Your task to perform on an android device: check android version Image 0: 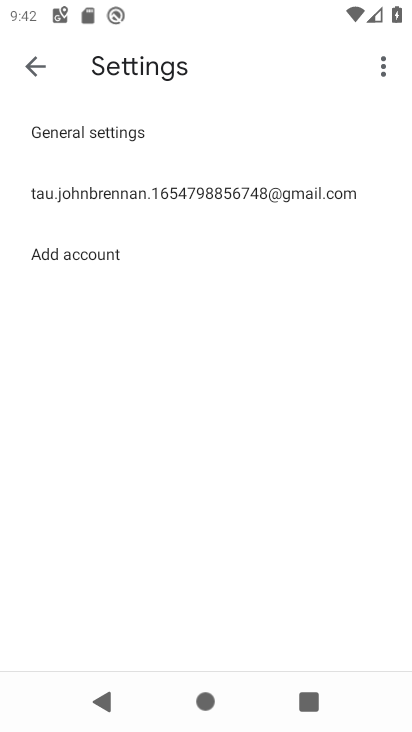
Step 0: press home button
Your task to perform on an android device: check android version Image 1: 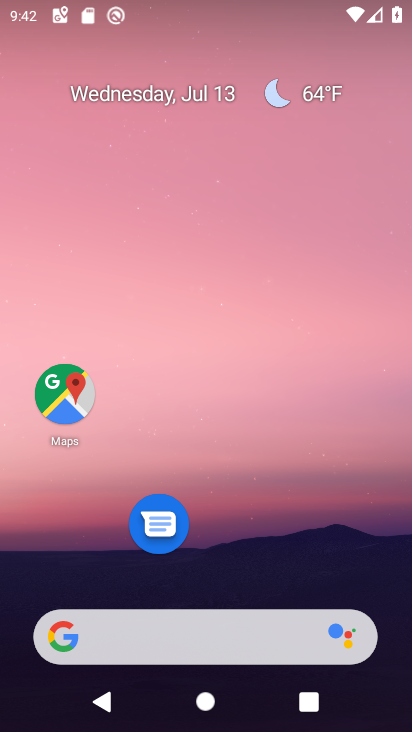
Step 1: drag from (191, 577) to (152, 109)
Your task to perform on an android device: check android version Image 2: 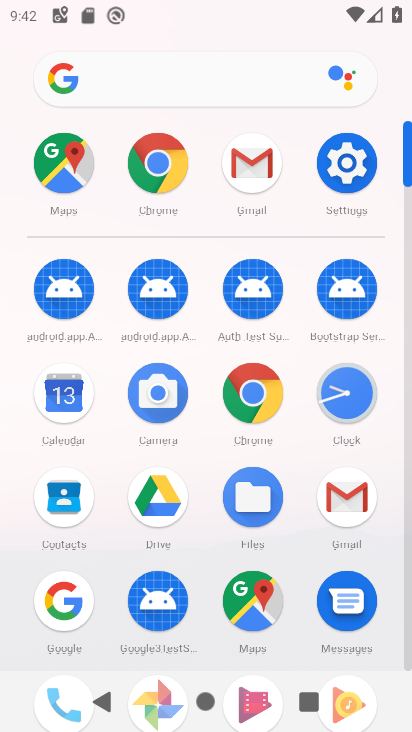
Step 2: click (331, 156)
Your task to perform on an android device: check android version Image 3: 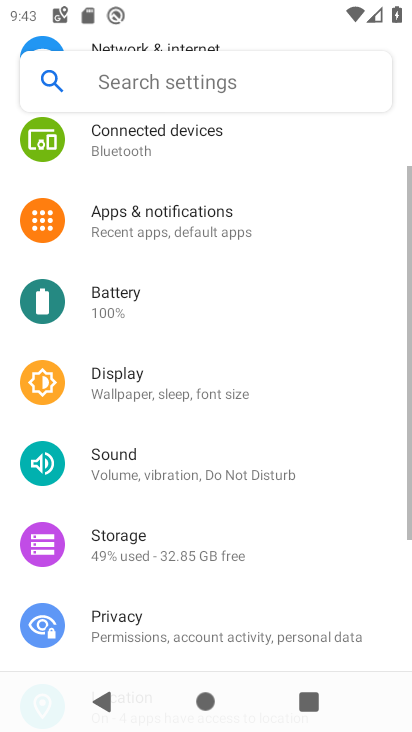
Step 3: drag from (191, 633) to (181, 43)
Your task to perform on an android device: check android version Image 4: 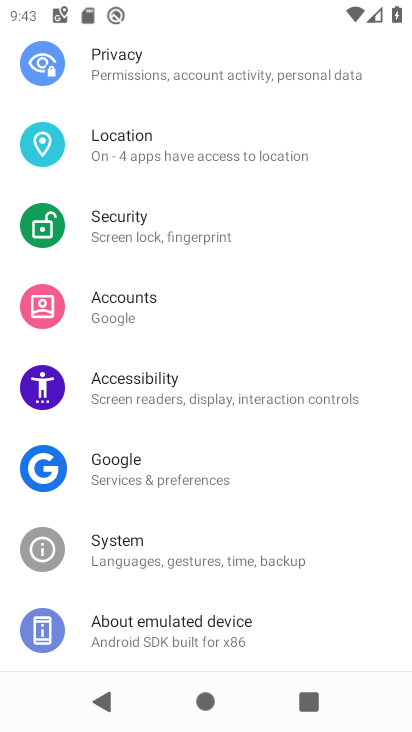
Step 4: drag from (197, 522) to (173, 166)
Your task to perform on an android device: check android version Image 5: 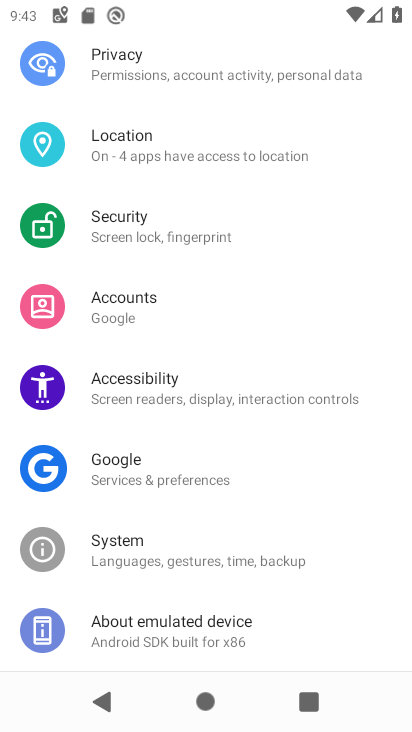
Step 5: click (178, 608)
Your task to perform on an android device: check android version Image 6: 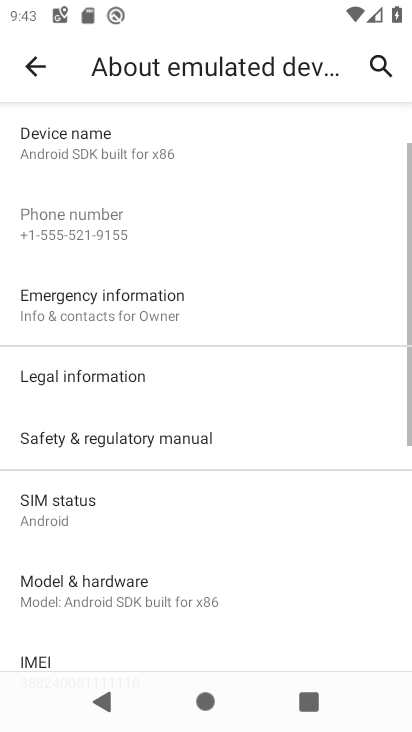
Step 6: drag from (179, 605) to (159, 87)
Your task to perform on an android device: check android version Image 7: 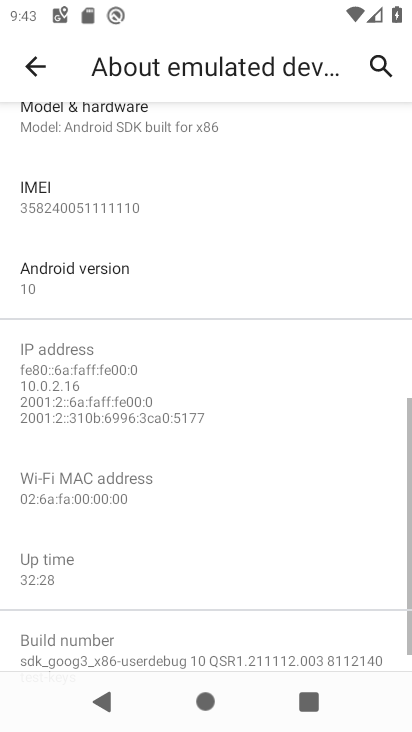
Step 7: click (130, 284)
Your task to perform on an android device: check android version Image 8: 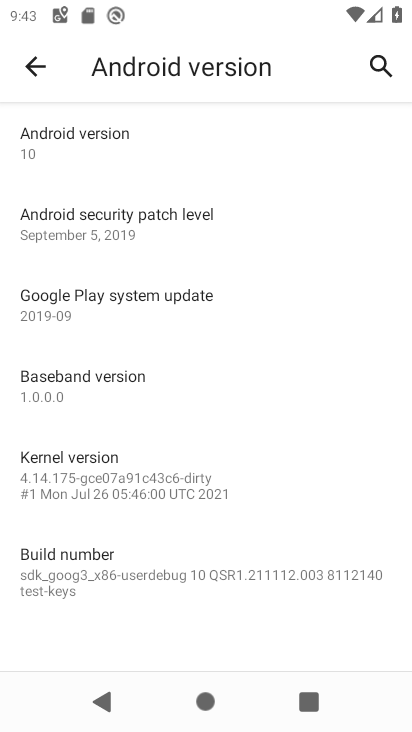
Step 8: task complete